Your task to perform on an android device: empty trash in google photos Image 0: 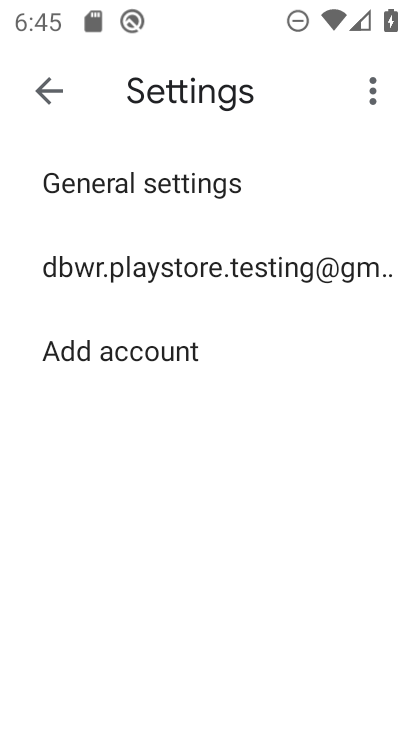
Step 0: press home button
Your task to perform on an android device: empty trash in google photos Image 1: 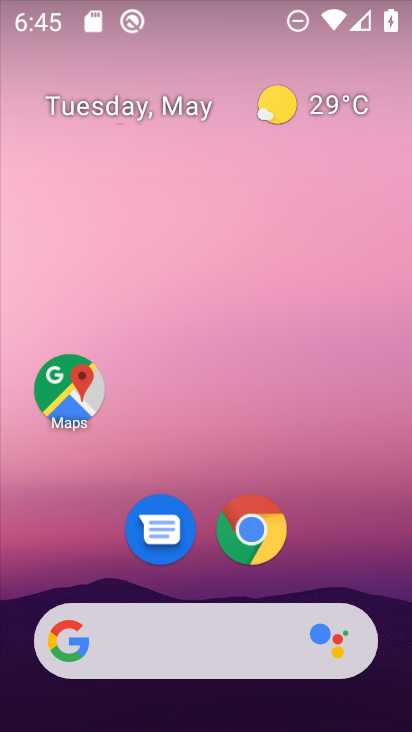
Step 1: drag from (387, 595) to (256, 223)
Your task to perform on an android device: empty trash in google photos Image 2: 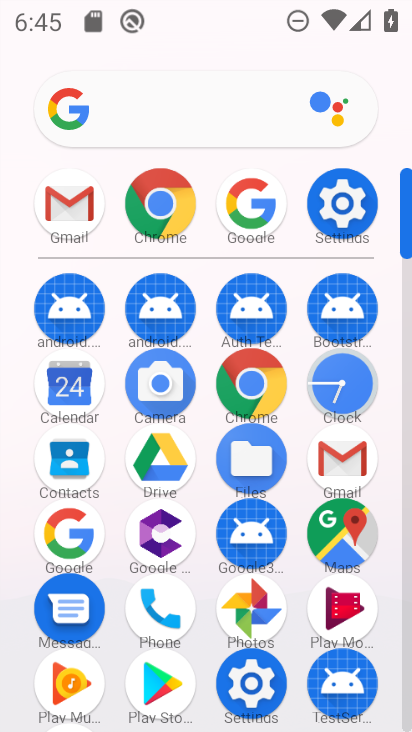
Step 2: click (255, 612)
Your task to perform on an android device: empty trash in google photos Image 3: 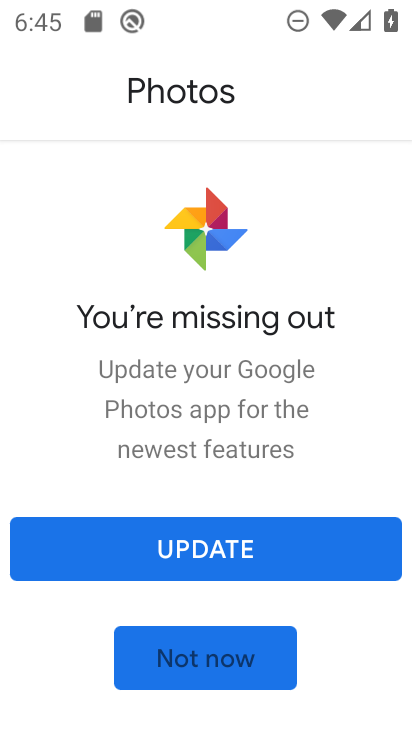
Step 3: click (147, 567)
Your task to perform on an android device: empty trash in google photos Image 4: 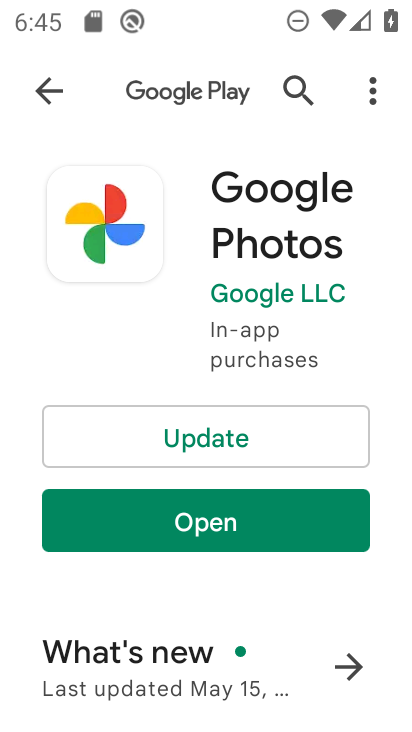
Step 4: click (169, 428)
Your task to perform on an android device: empty trash in google photos Image 5: 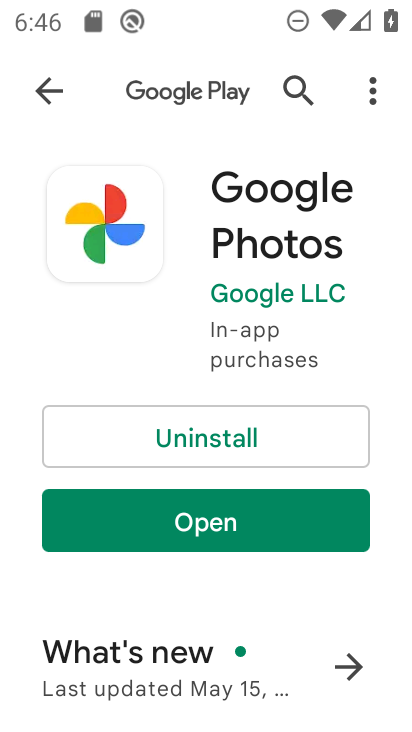
Step 5: click (238, 522)
Your task to perform on an android device: empty trash in google photos Image 6: 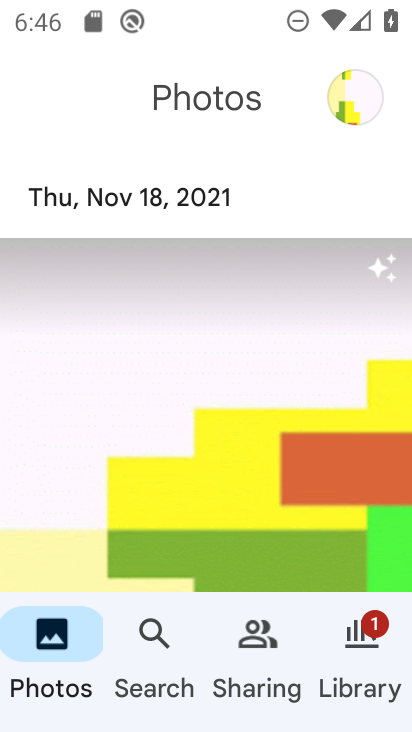
Step 6: click (367, 647)
Your task to perform on an android device: empty trash in google photos Image 7: 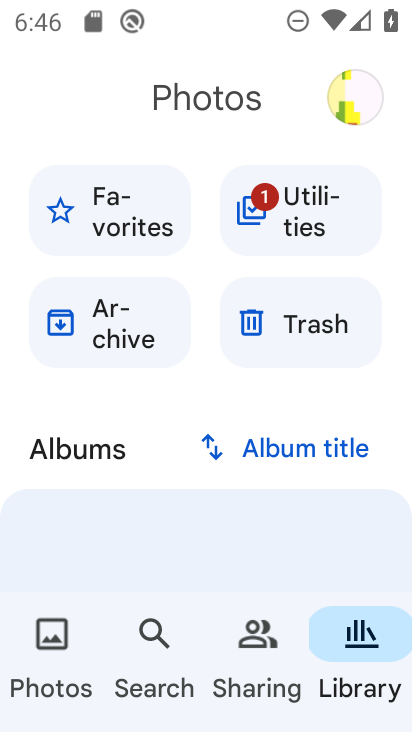
Step 7: click (311, 305)
Your task to perform on an android device: empty trash in google photos Image 8: 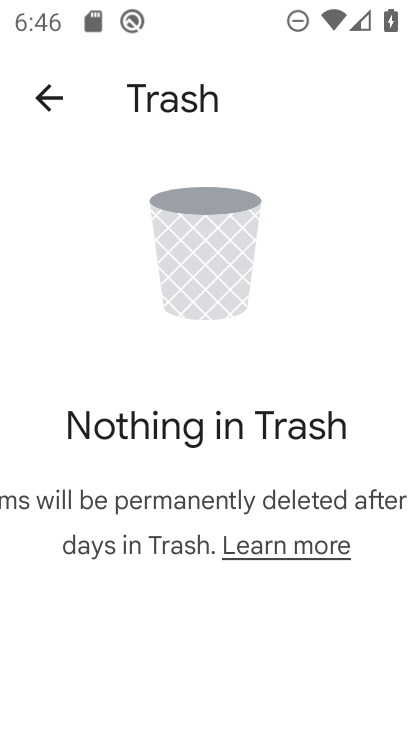
Step 8: task complete